Your task to perform on an android device: check battery use Image 0: 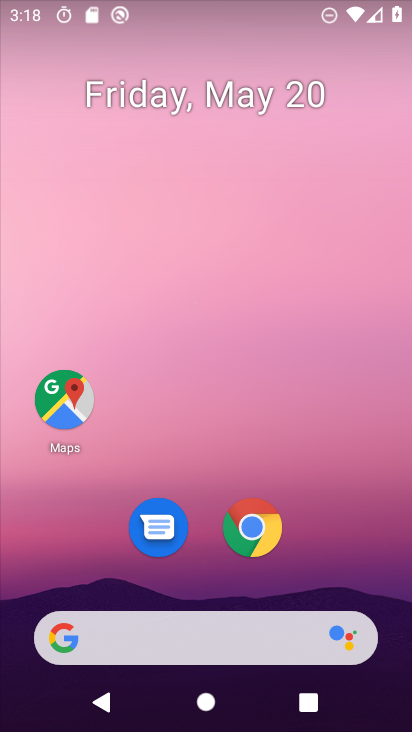
Step 0: drag from (199, 553) to (253, 95)
Your task to perform on an android device: check battery use Image 1: 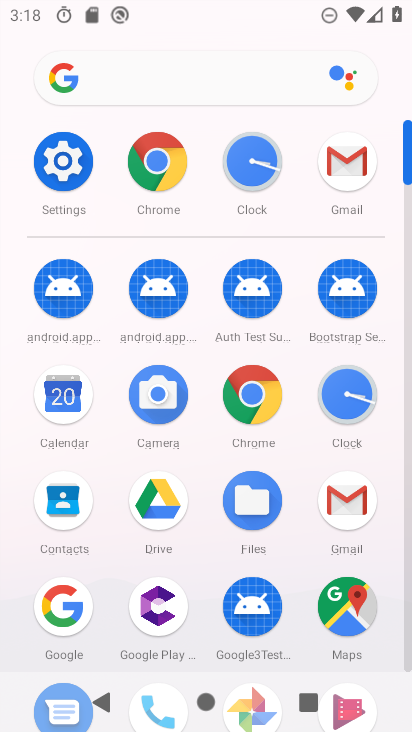
Step 1: click (63, 161)
Your task to perform on an android device: check battery use Image 2: 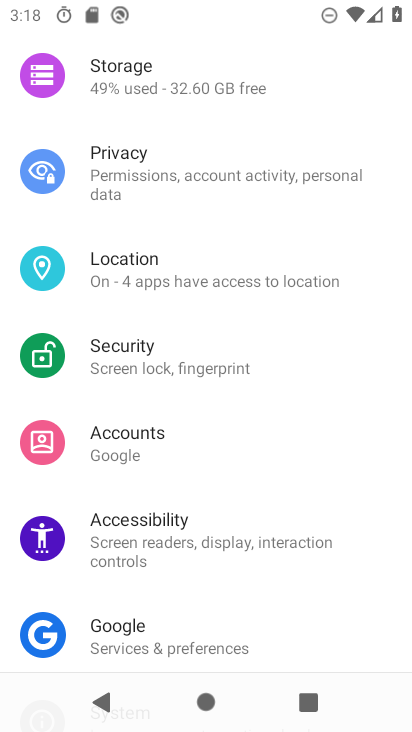
Step 2: drag from (153, 194) to (128, 646)
Your task to perform on an android device: check battery use Image 3: 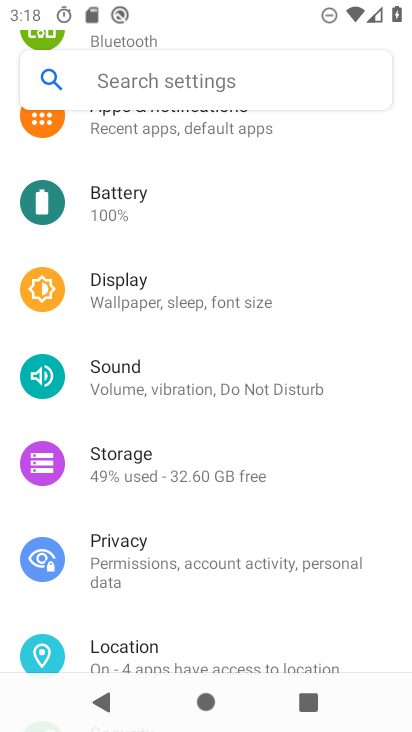
Step 3: click (111, 206)
Your task to perform on an android device: check battery use Image 4: 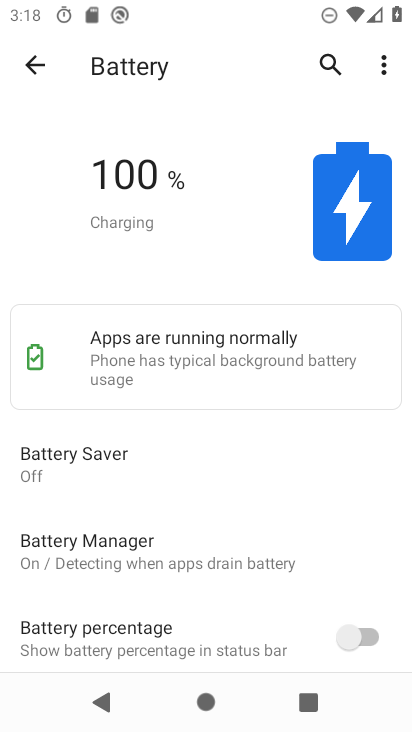
Step 4: click (380, 64)
Your task to perform on an android device: check battery use Image 5: 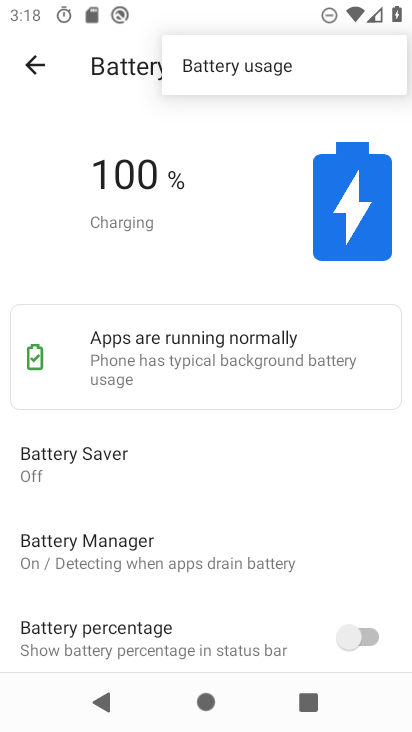
Step 5: click (268, 68)
Your task to perform on an android device: check battery use Image 6: 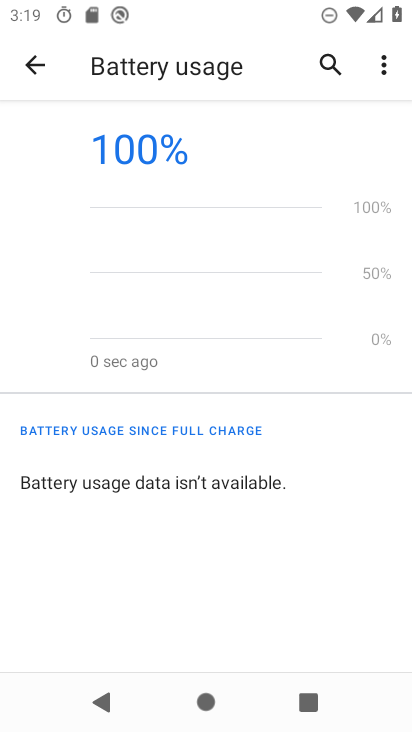
Step 6: task complete